Your task to perform on an android device: read, delete, or share a saved page in the chrome app Image 0: 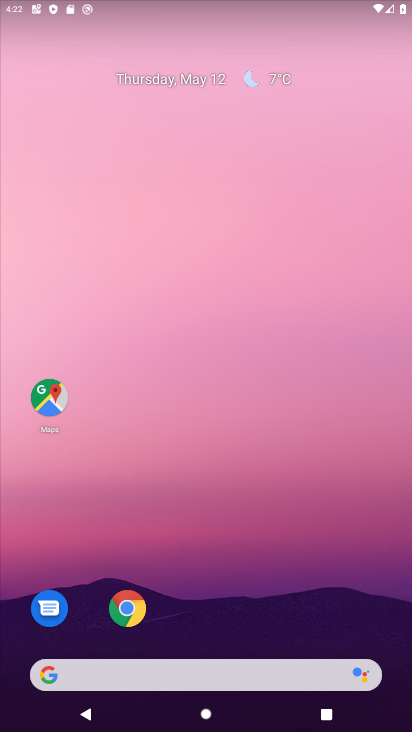
Step 0: click (139, 615)
Your task to perform on an android device: read, delete, or share a saved page in the chrome app Image 1: 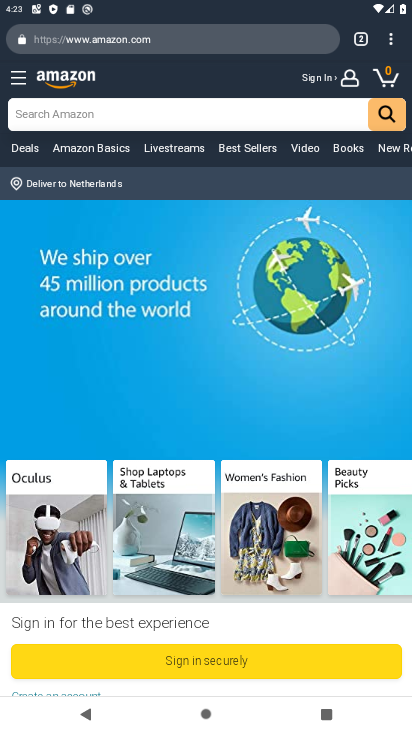
Step 1: click (139, 615)
Your task to perform on an android device: read, delete, or share a saved page in the chrome app Image 2: 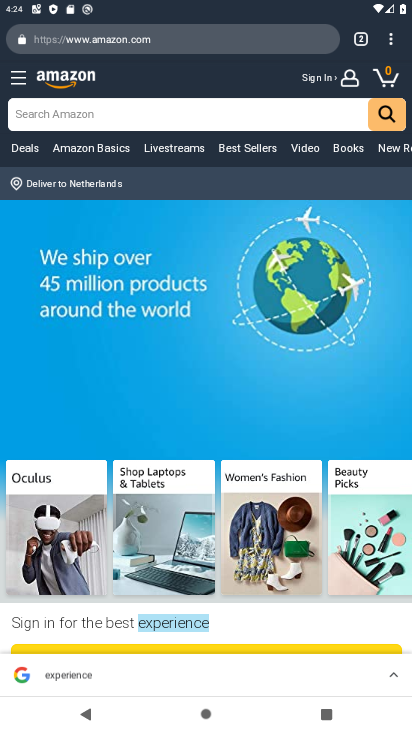
Step 2: task complete